Your task to perform on an android device: delete the emails in spam in the gmail app Image 0: 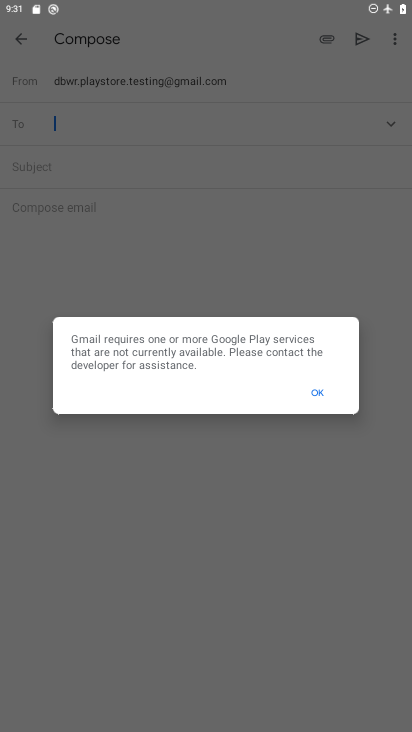
Step 0: press home button
Your task to perform on an android device: delete the emails in spam in the gmail app Image 1: 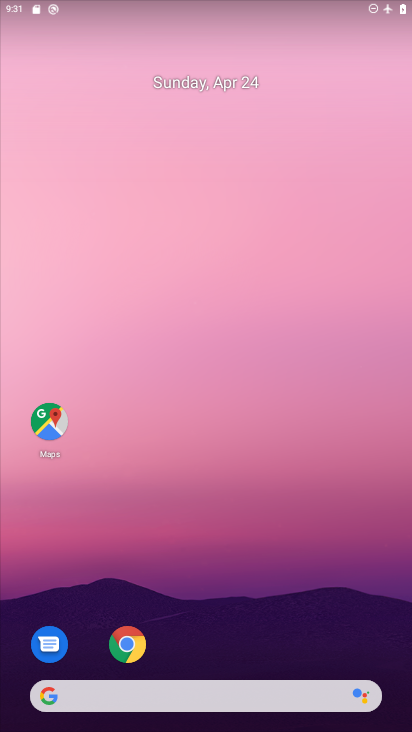
Step 1: drag from (183, 579) to (320, 43)
Your task to perform on an android device: delete the emails in spam in the gmail app Image 2: 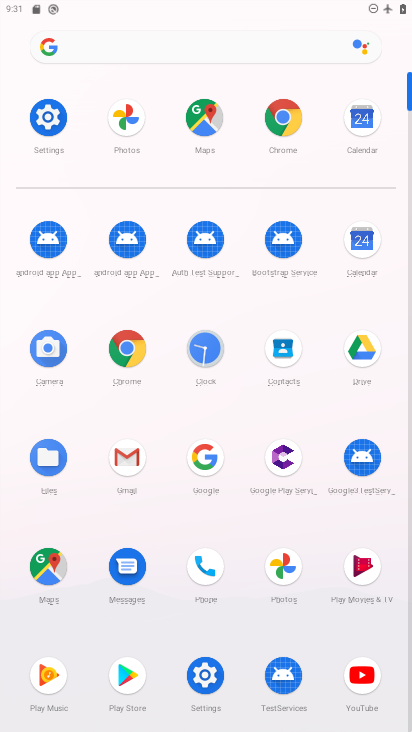
Step 2: click (127, 459)
Your task to perform on an android device: delete the emails in spam in the gmail app Image 3: 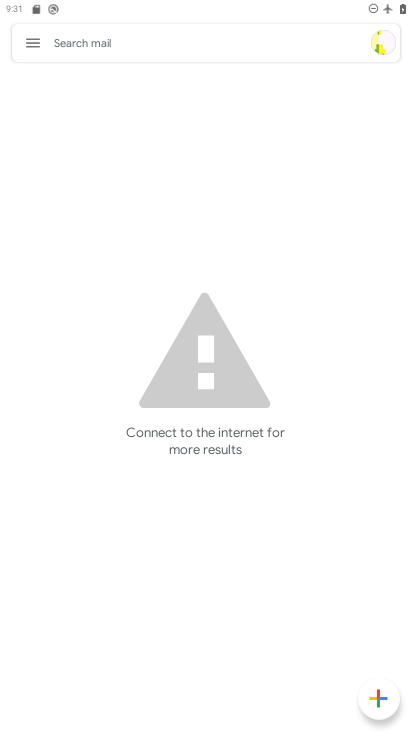
Step 3: task complete